Your task to perform on an android device: Open Yahoo.com Image 0: 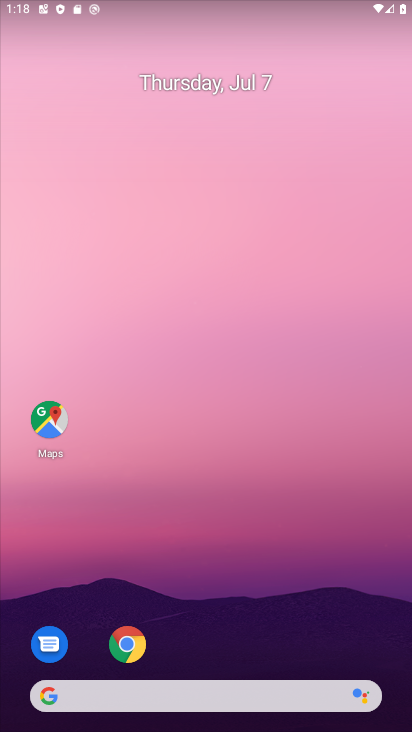
Step 0: drag from (216, 386) to (219, 100)
Your task to perform on an android device: Open Yahoo.com Image 1: 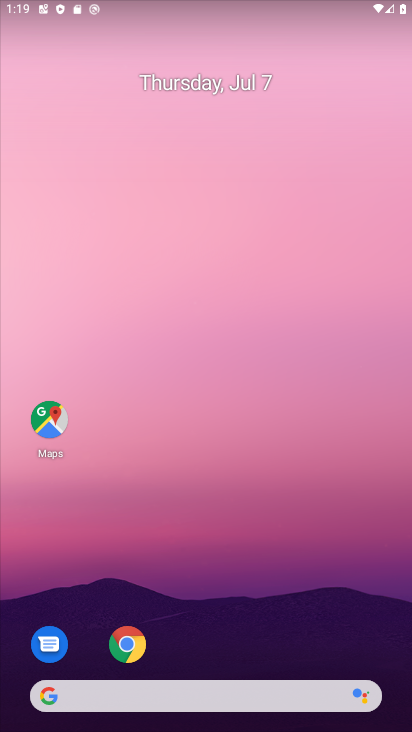
Step 1: drag from (237, 601) to (218, 110)
Your task to perform on an android device: Open Yahoo.com Image 2: 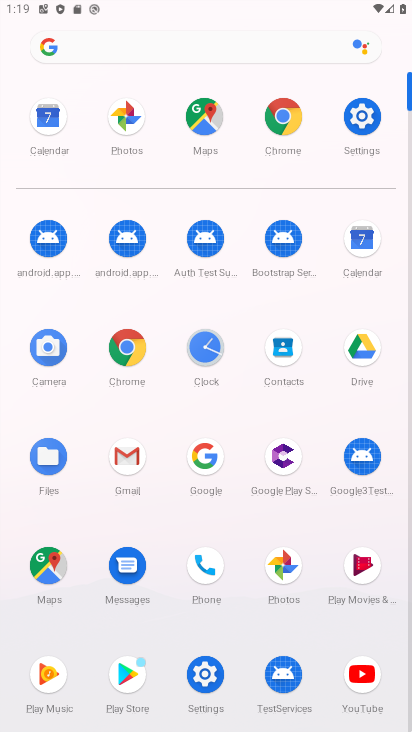
Step 2: click (121, 343)
Your task to perform on an android device: Open Yahoo.com Image 3: 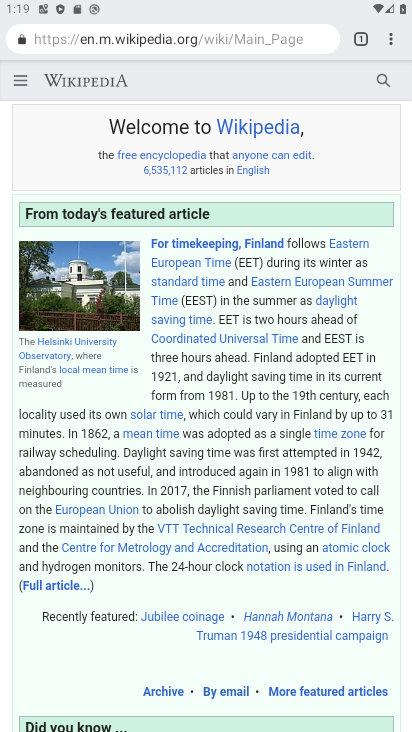
Step 3: click (349, 35)
Your task to perform on an android device: Open Yahoo.com Image 4: 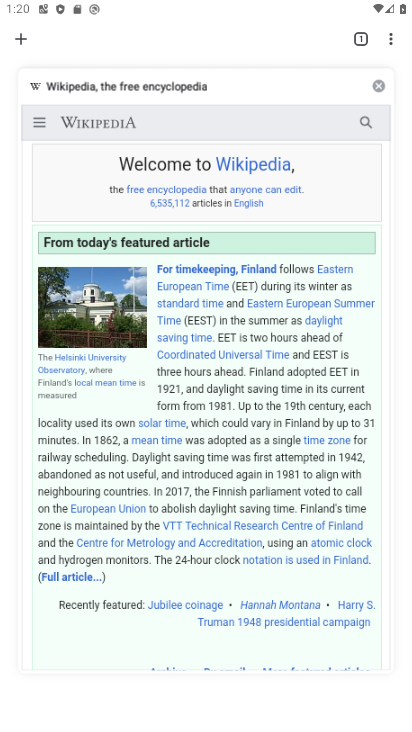
Step 4: click (23, 37)
Your task to perform on an android device: Open Yahoo.com Image 5: 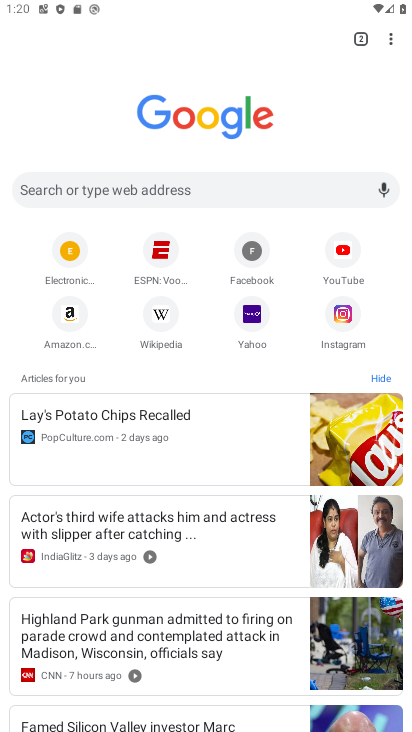
Step 5: click (242, 334)
Your task to perform on an android device: Open Yahoo.com Image 6: 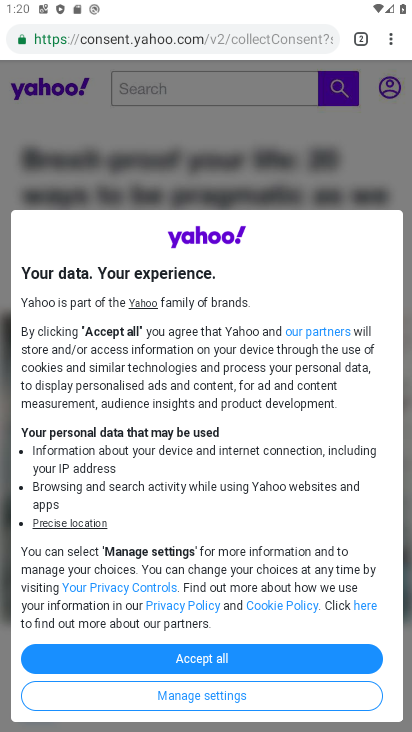
Step 6: click (188, 646)
Your task to perform on an android device: Open Yahoo.com Image 7: 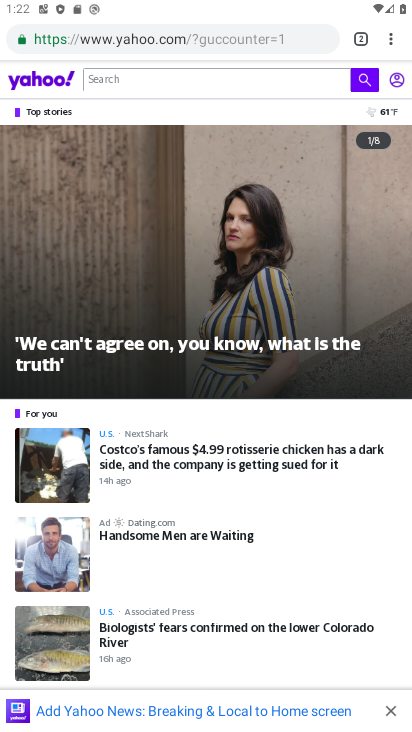
Step 7: task complete